Your task to perform on an android device: What's the weather like in Sydney? Image 0: 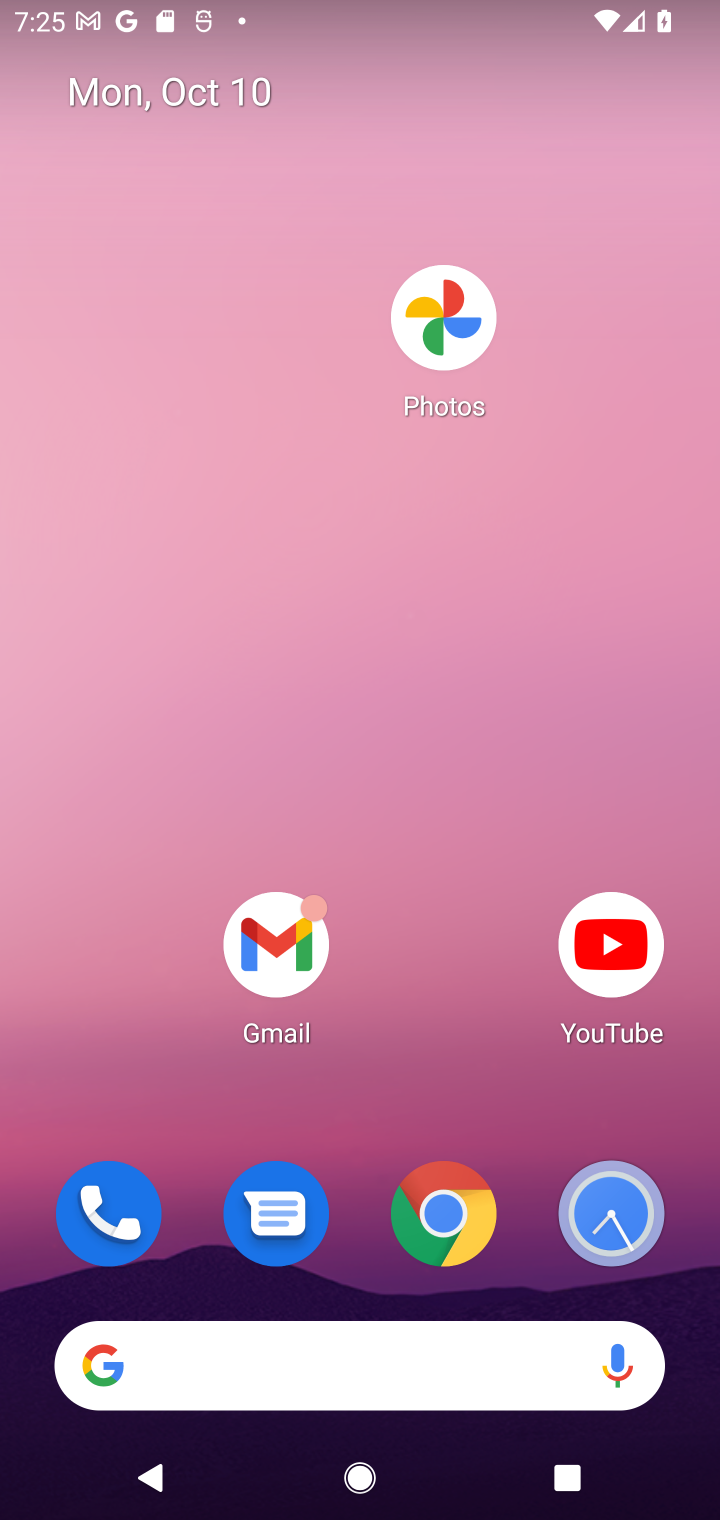
Step 0: click (333, 1380)
Your task to perform on an android device: What's the weather like in Sydney? Image 1: 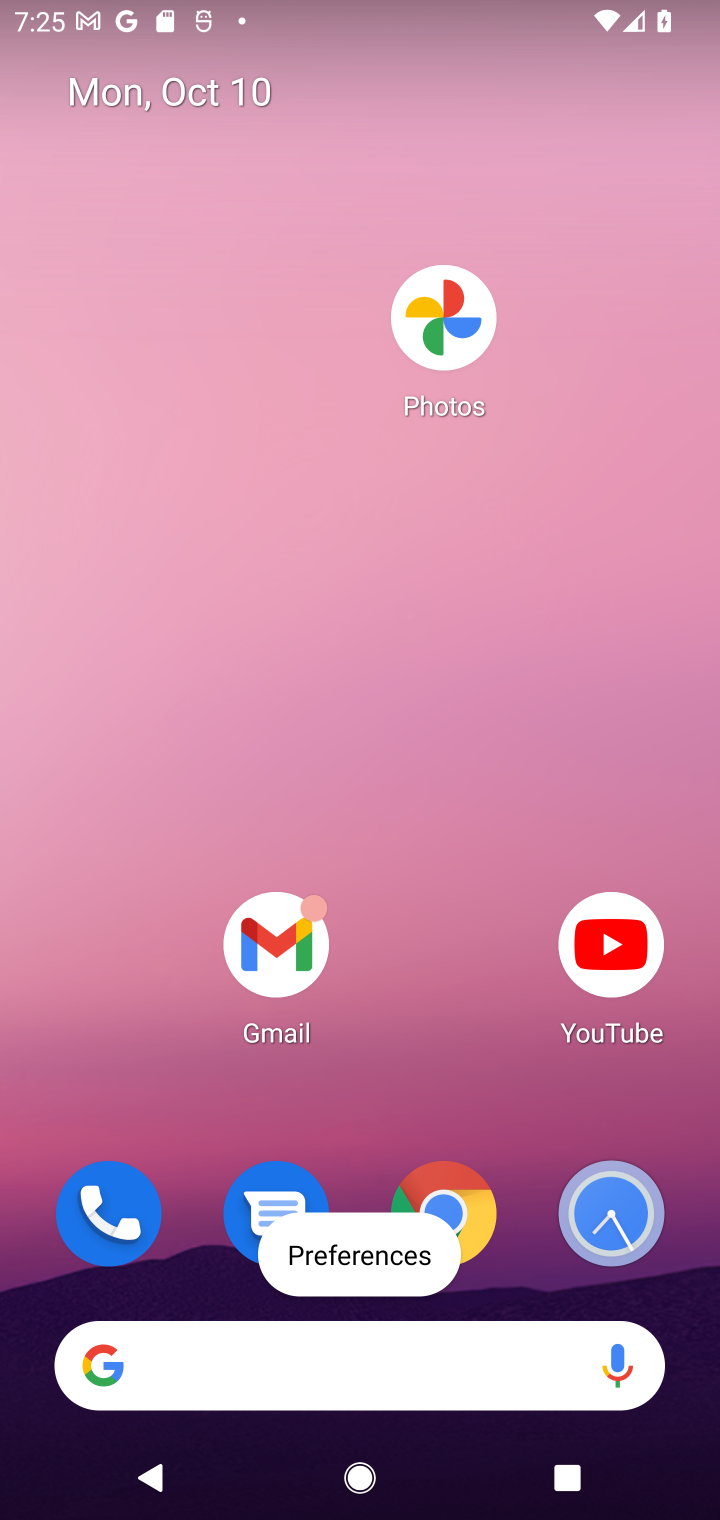
Step 1: click (307, 1357)
Your task to perform on an android device: What's the weather like in Sydney? Image 2: 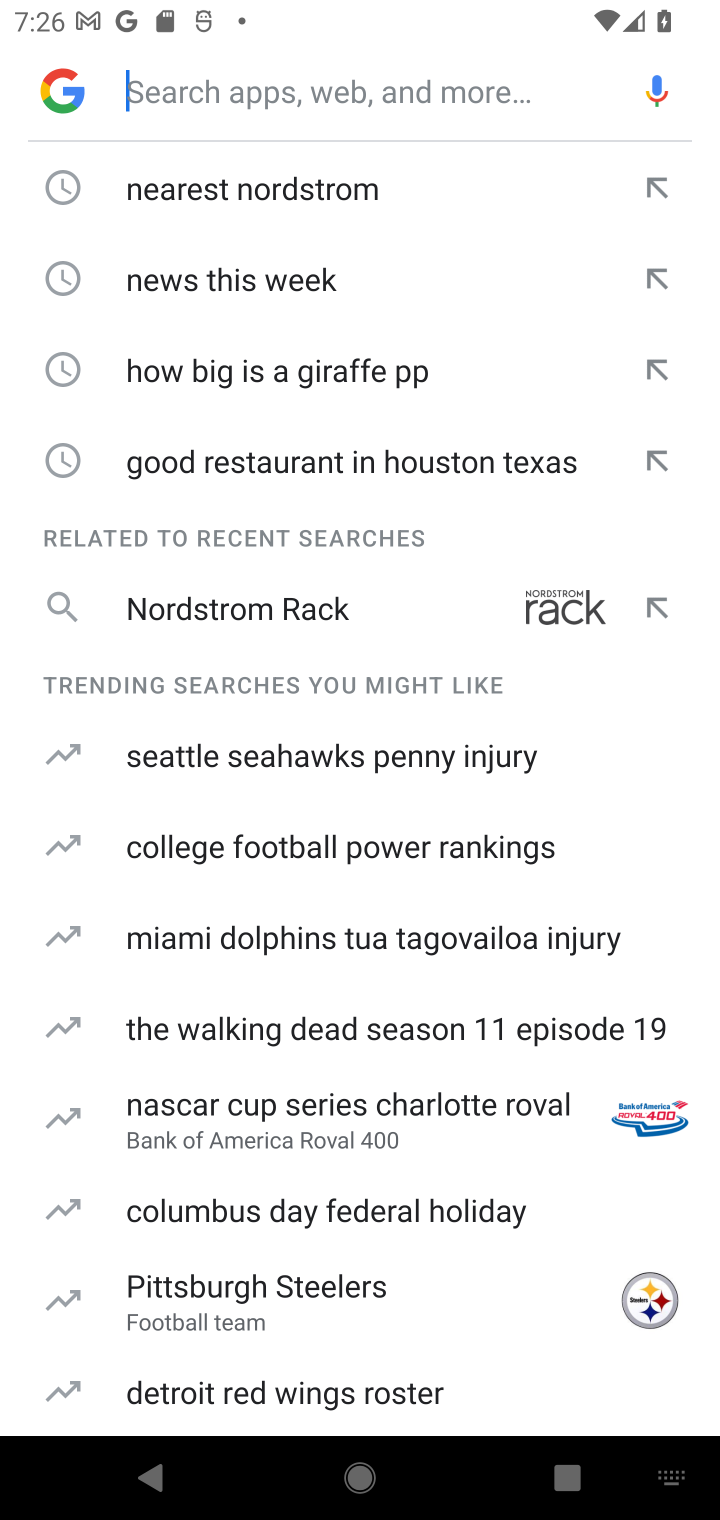
Step 2: type "eather like in Sydney"
Your task to perform on an android device: What's the weather like in Sydney? Image 3: 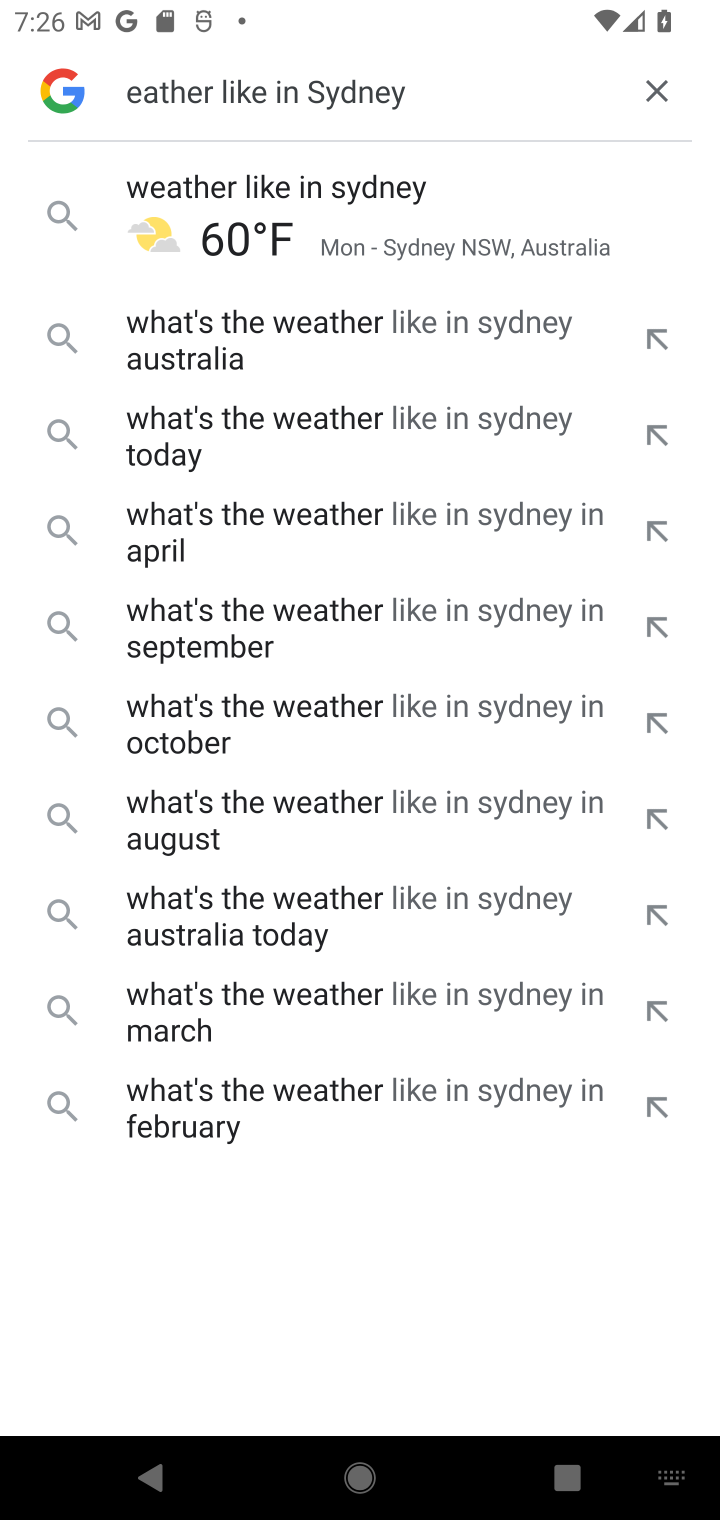
Step 3: click (439, 163)
Your task to perform on an android device: What's the weather like in Sydney? Image 4: 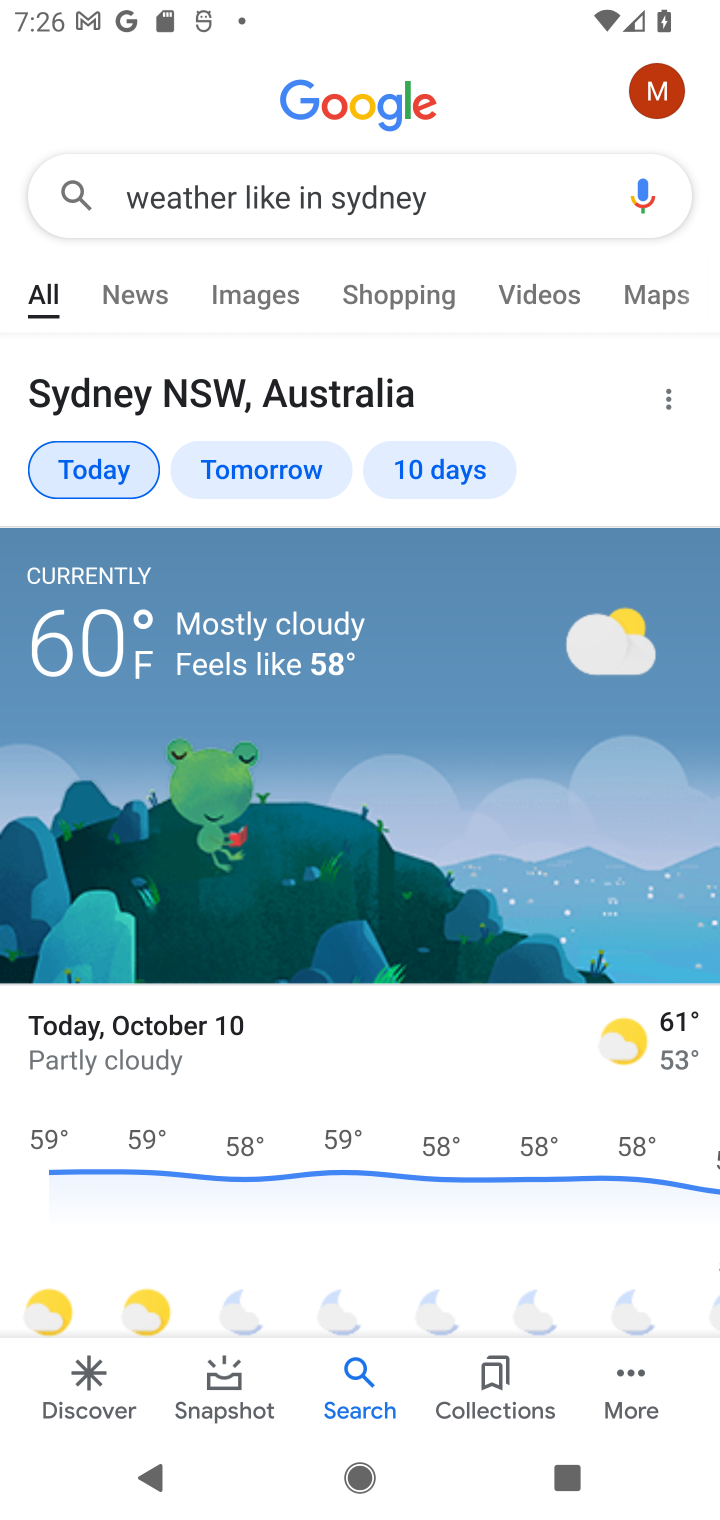
Step 4: task complete